Your task to perform on an android device: open app "Microsoft Authenticator" (install if not already installed) Image 0: 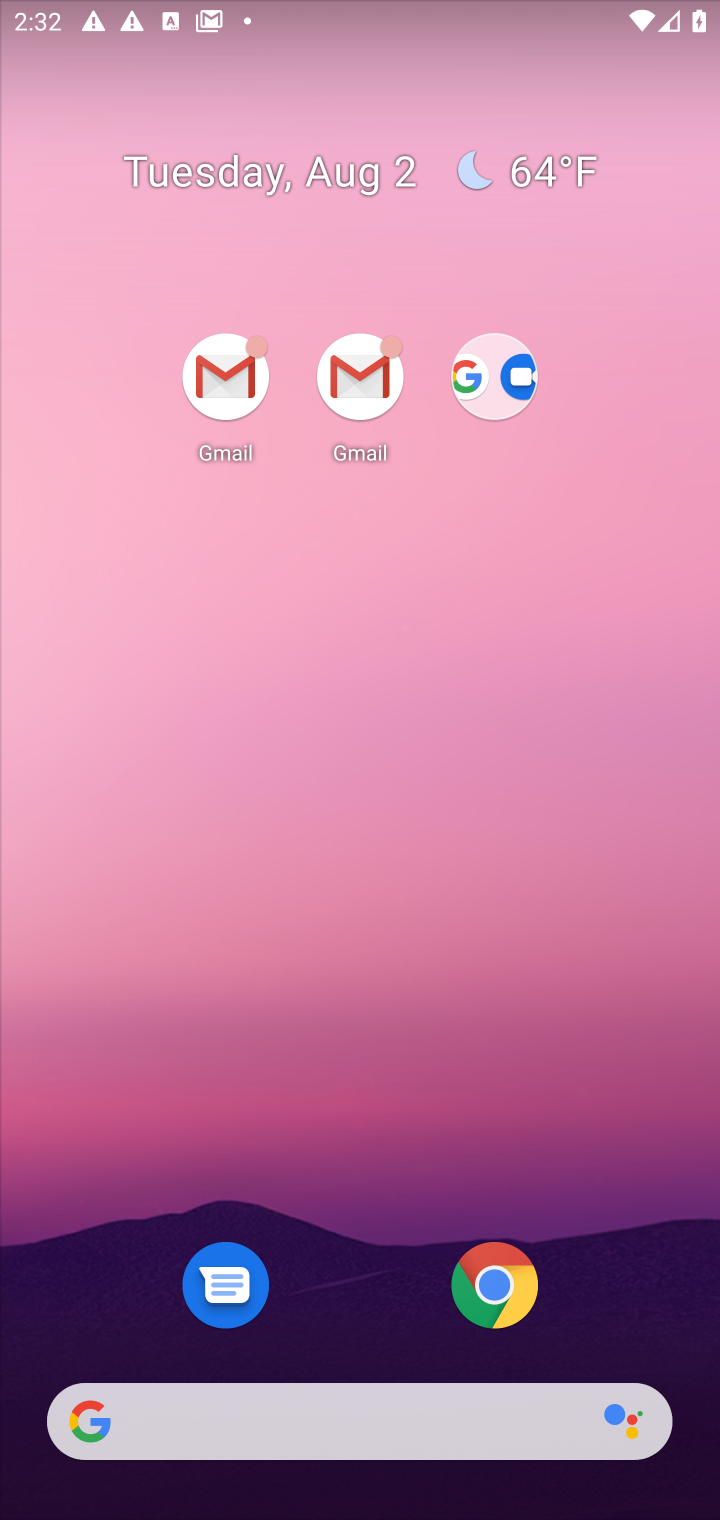
Step 0: drag from (674, 1154) to (552, 131)
Your task to perform on an android device: open app "Microsoft Authenticator" (install if not already installed) Image 1: 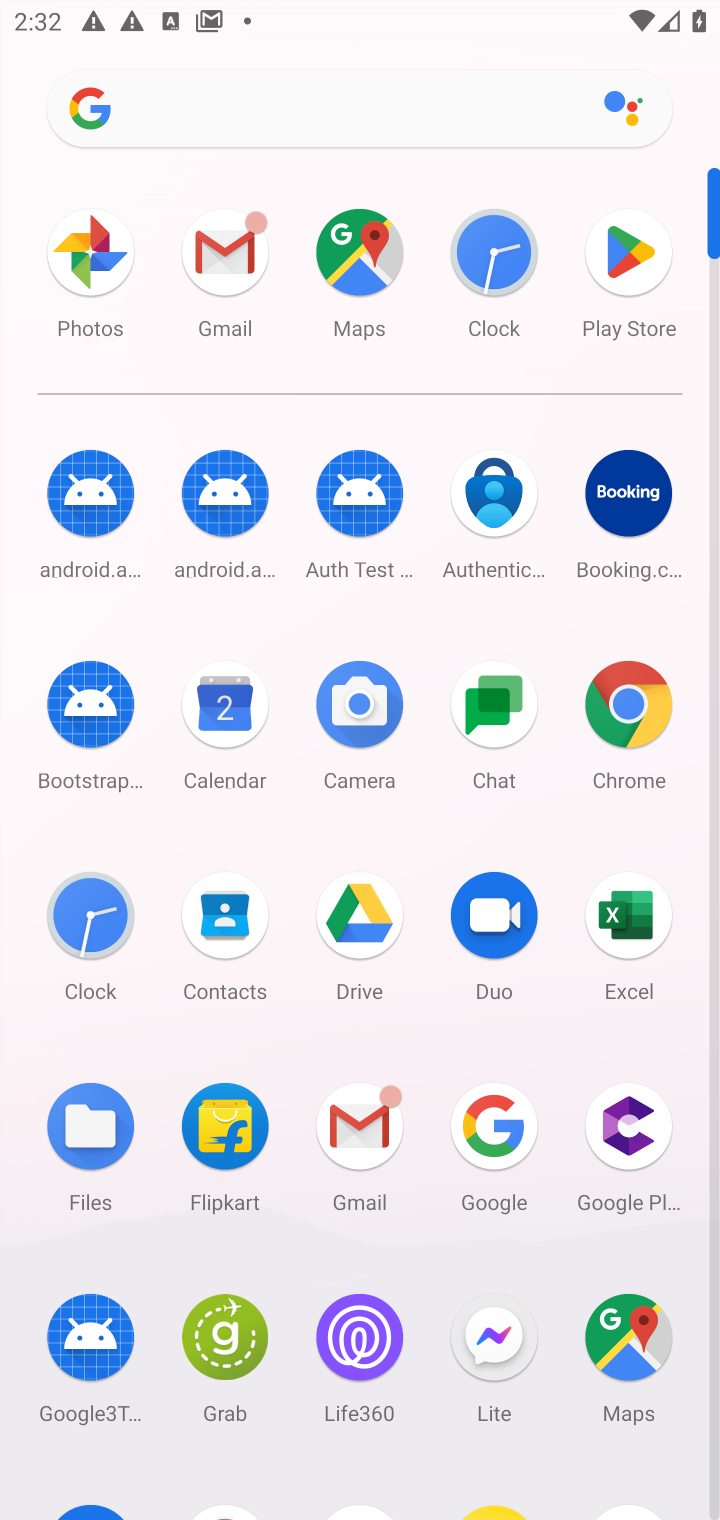
Step 1: drag from (421, 1013) to (371, 239)
Your task to perform on an android device: open app "Microsoft Authenticator" (install if not already installed) Image 2: 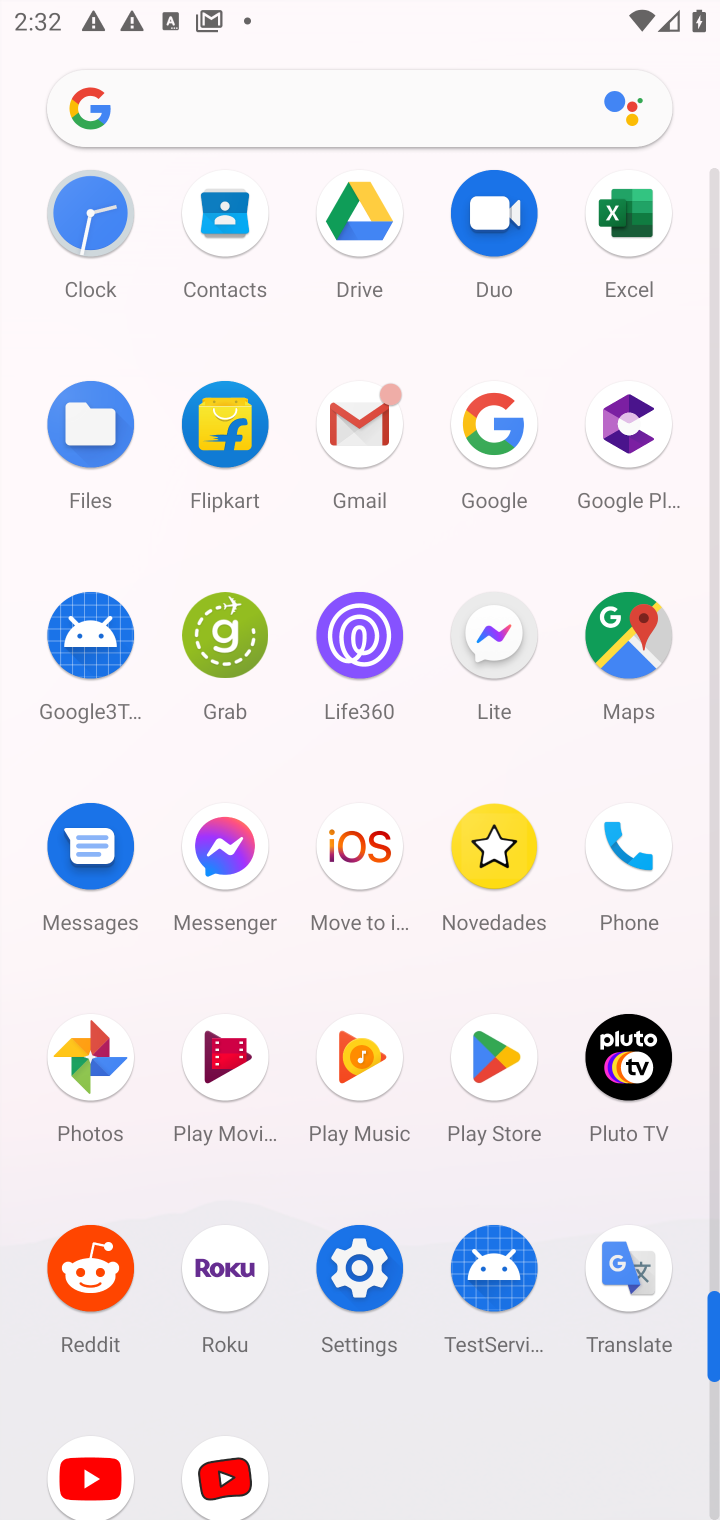
Step 2: click (482, 1059)
Your task to perform on an android device: open app "Microsoft Authenticator" (install if not already installed) Image 3: 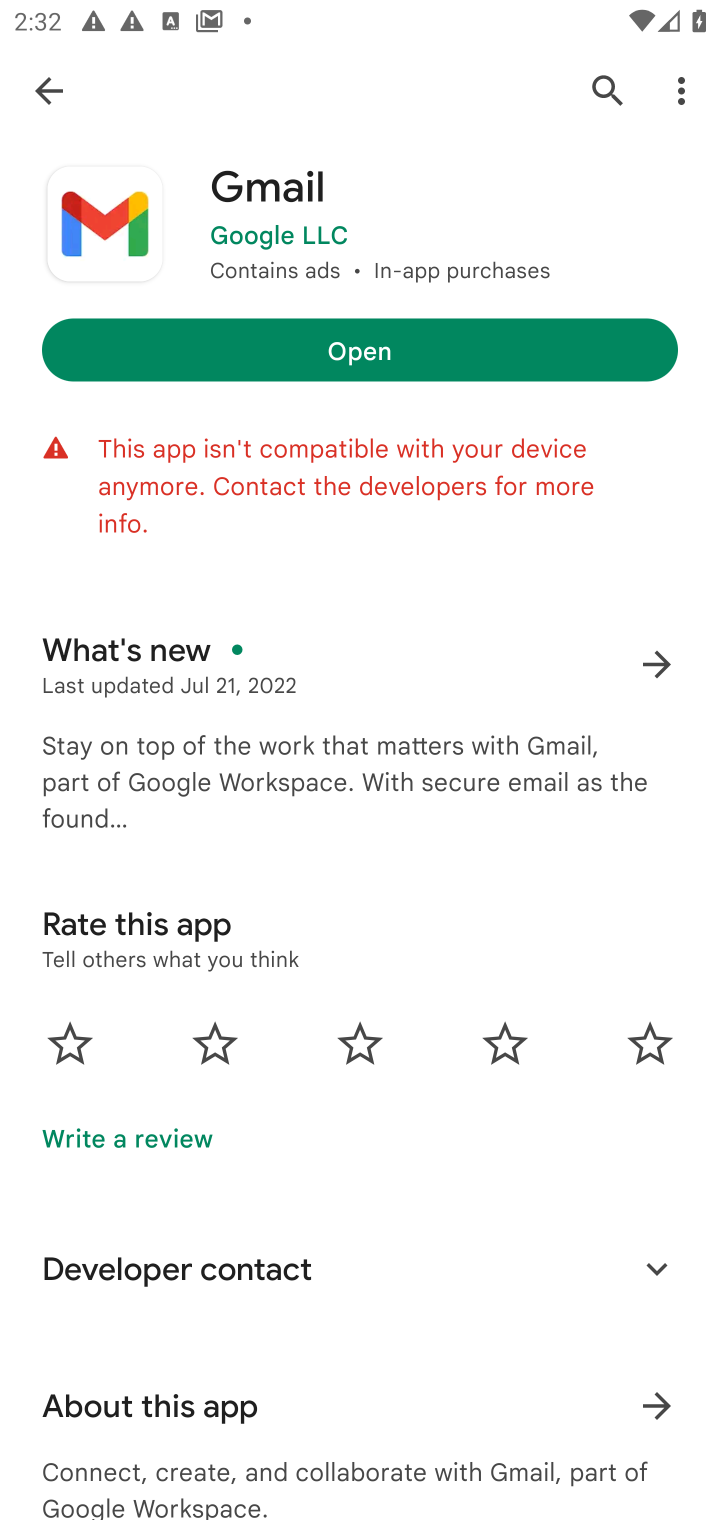
Step 3: click (600, 102)
Your task to perform on an android device: open app "Microsoft Authenticator" (install if not already installed) Image 4: 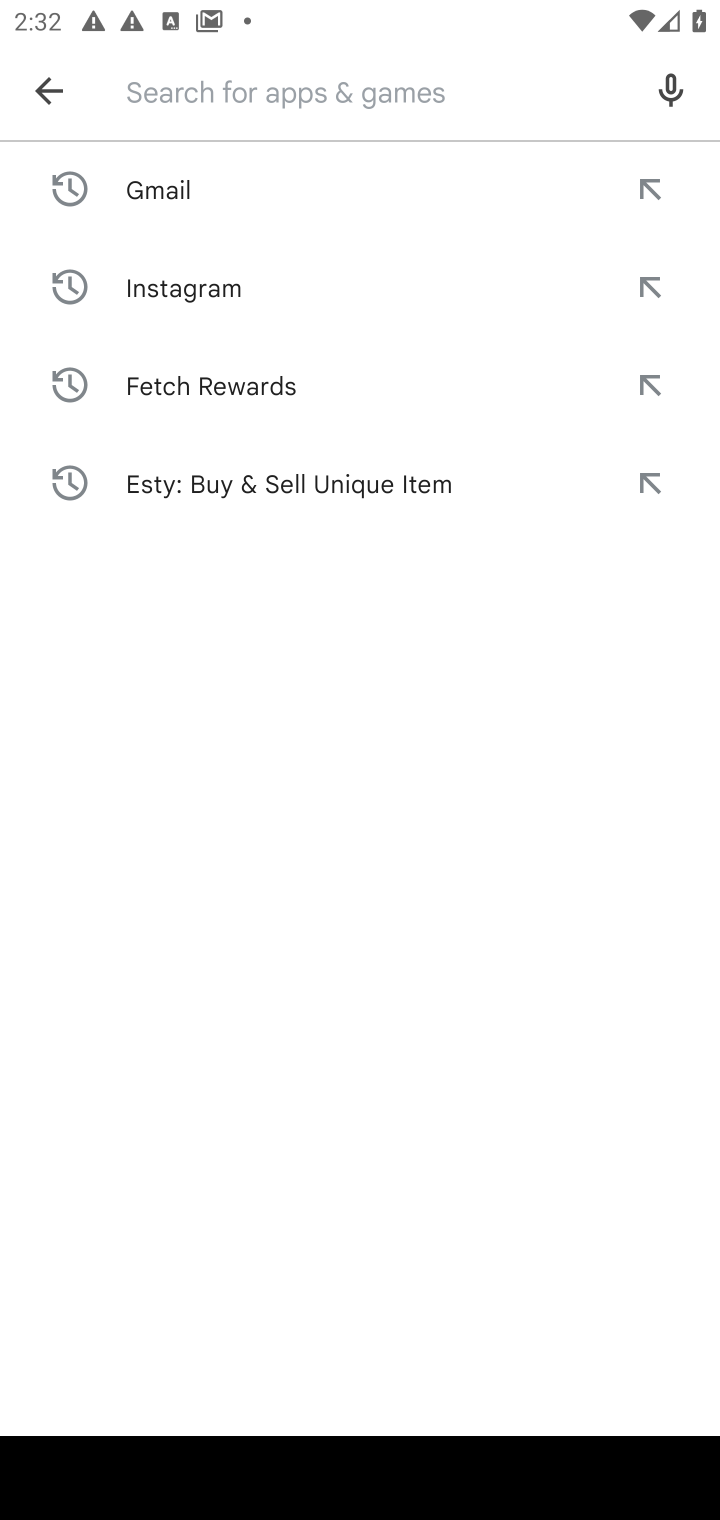
Step 4: type "Microsoft Authenticator"
Your task to perform on an android device: open app "Microsoft Authenticator" (install if not already installed) Image 5: 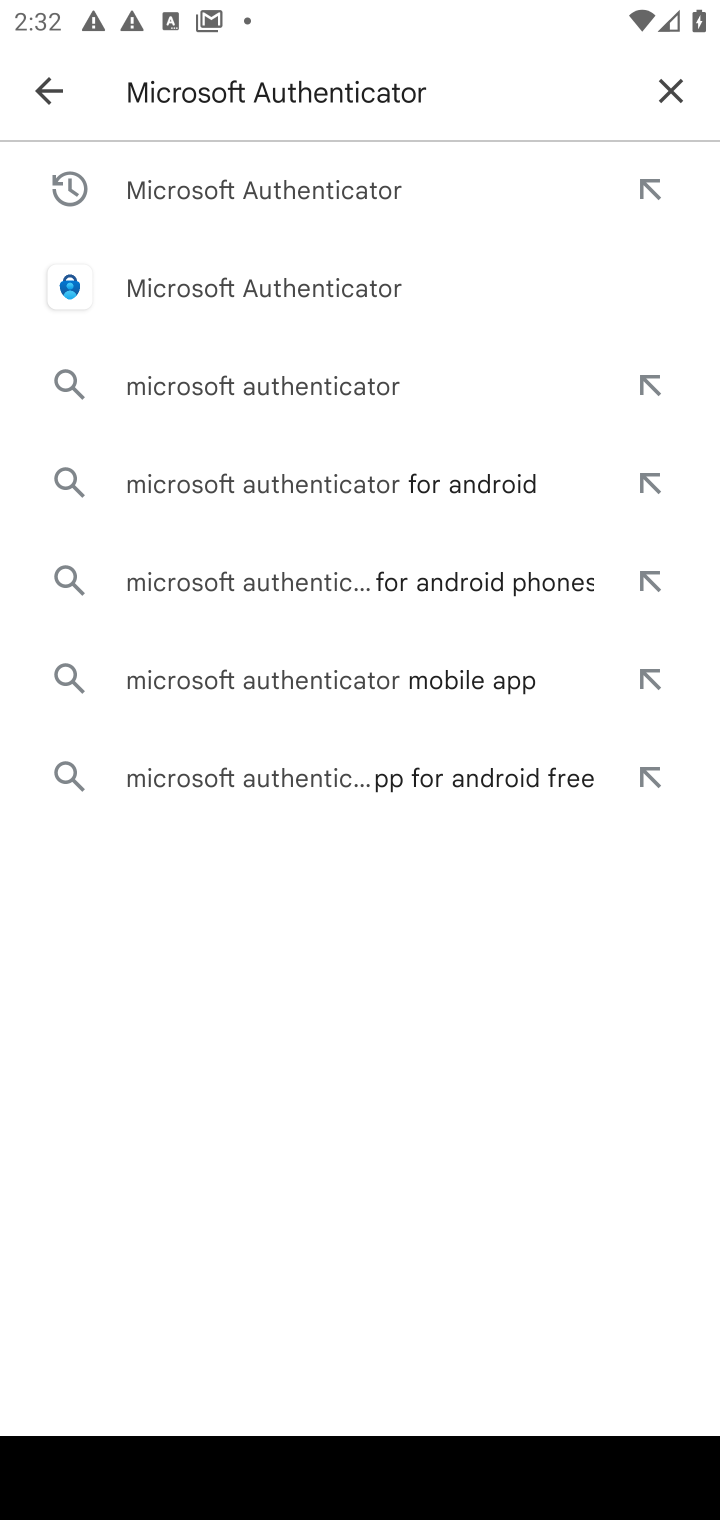
Step 5: click (405, 284)
Your task to perform on an android device: open app "Microsoft Authenticator" (install if not already installed) Image 6: 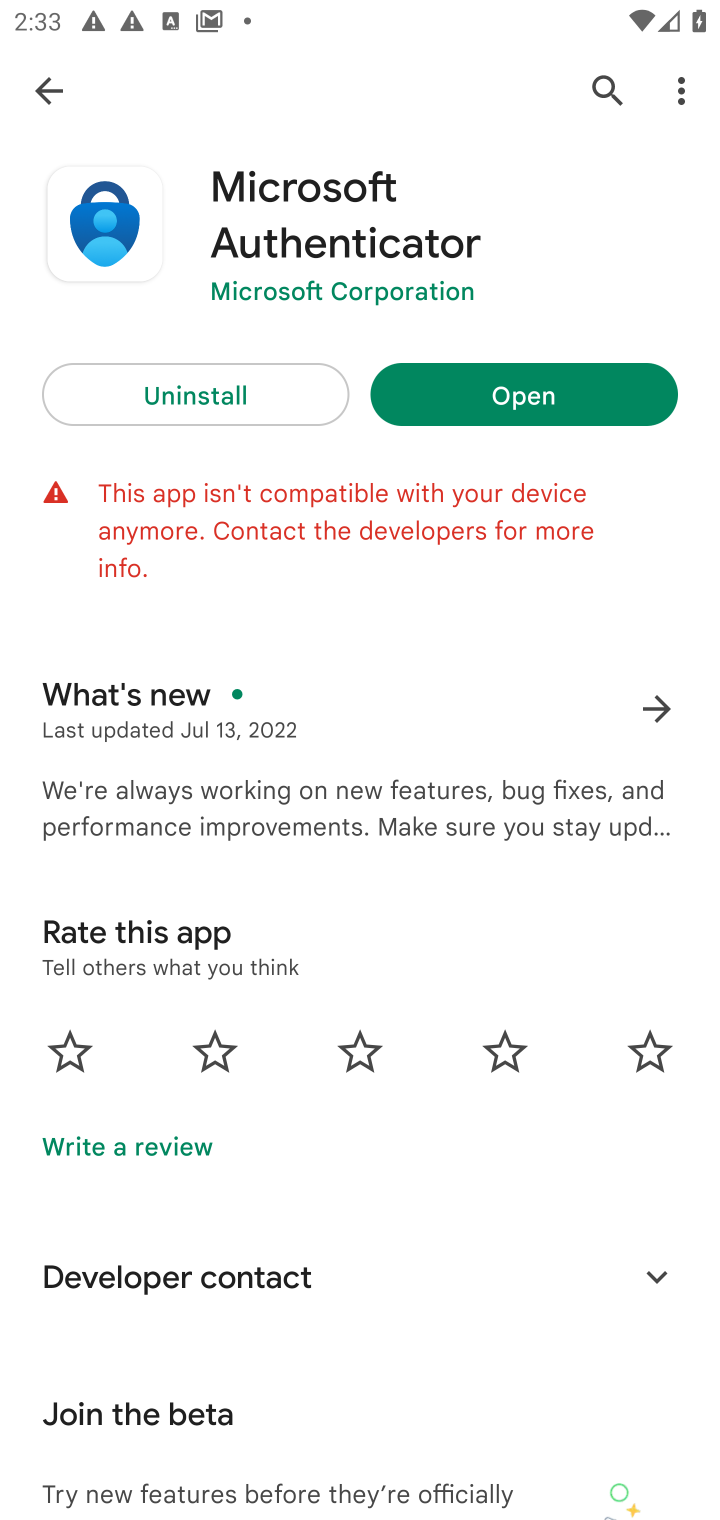
Step 6: click (581, 378)
Your task to perform on an android device: open app "Microsoft Authenticator" (install if not already installed) Image 7: 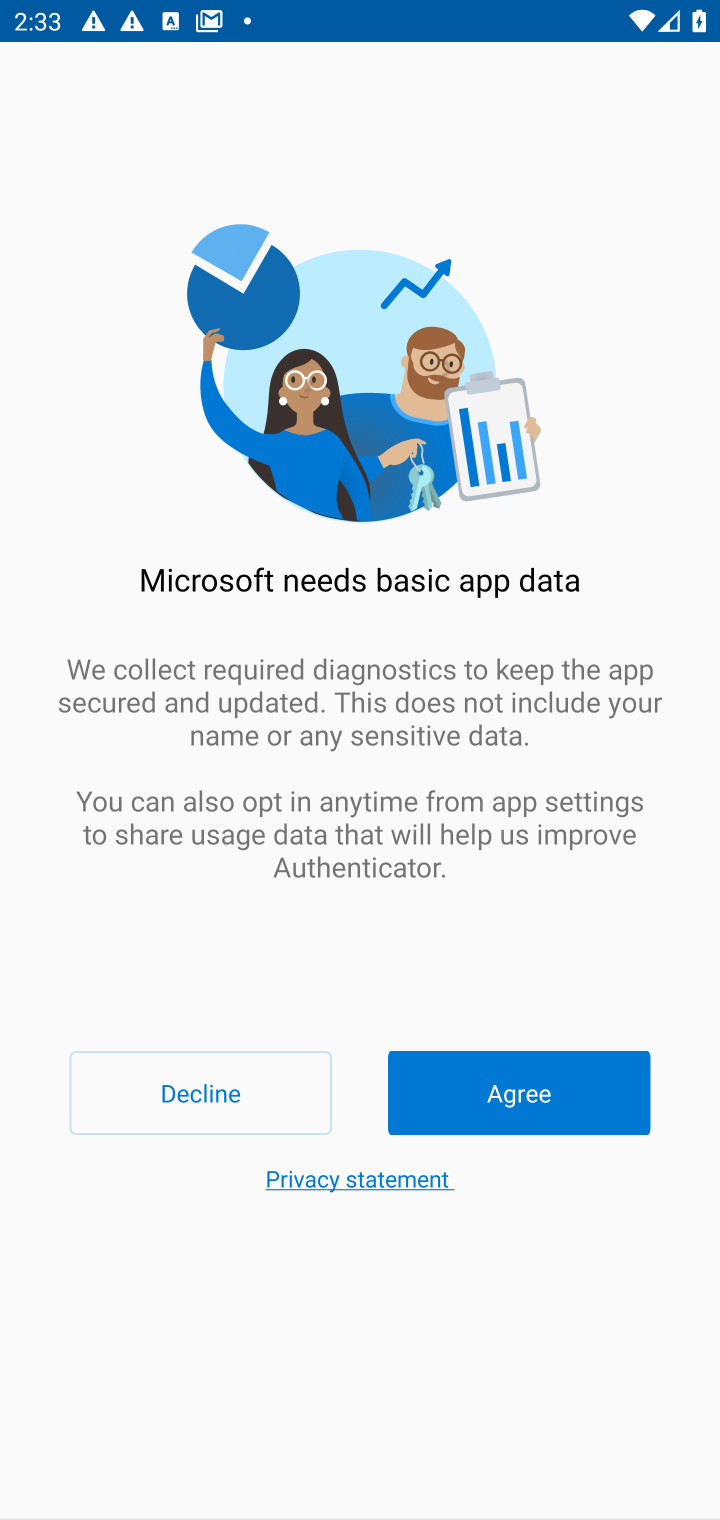
Step 7: task complete